Your task to perform on an android device: Open Amazon Image 0: 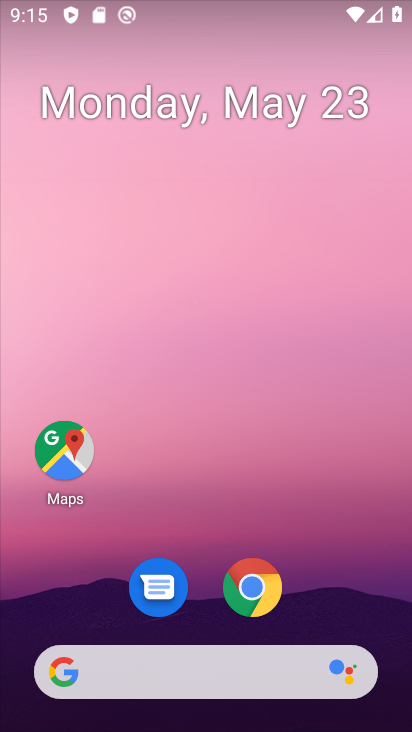
Step 0: drag from (352, 586) to (356, 63)
Your task to perform on an android device: Open Amazon Image 1: 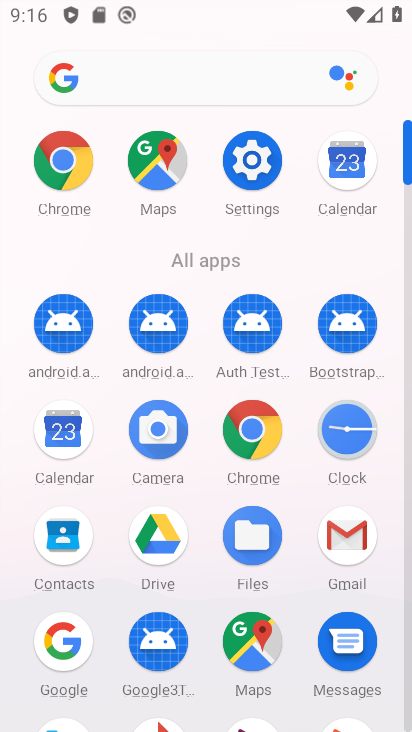
Step 1: click (259, 428)
Your task to perform on an android device: Open Amazon Image 2: 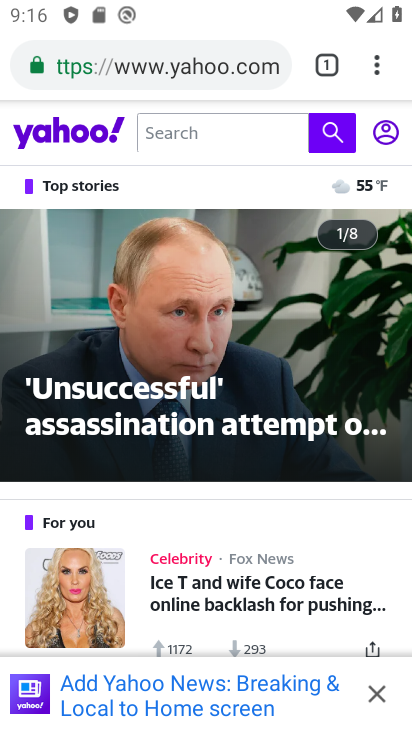
Step 2: click (212, 73)
Your task to perform on an android device: Open Amazon Image 3: 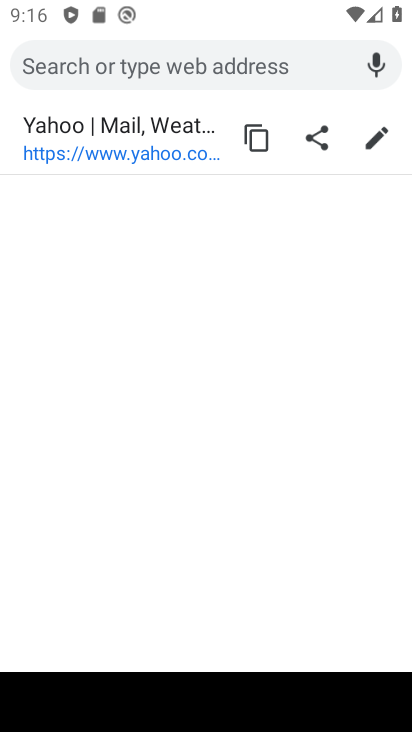
Step 3: type "amazon"
Your task to perform on an android device: Open Amazon Image 4: 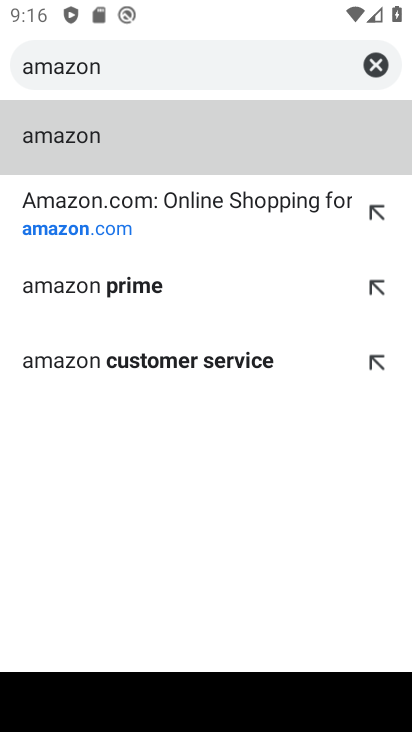
Step 4: click (95, 204)
Your task to perform on an android device: Open Amazon Image 5: 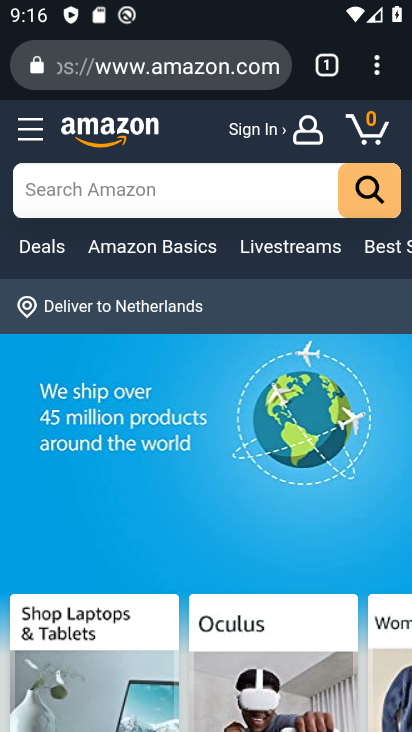
Step 5: task complete